Your task to perform on an android device: read, delete, or share a saved page in the chrome app Image 0: 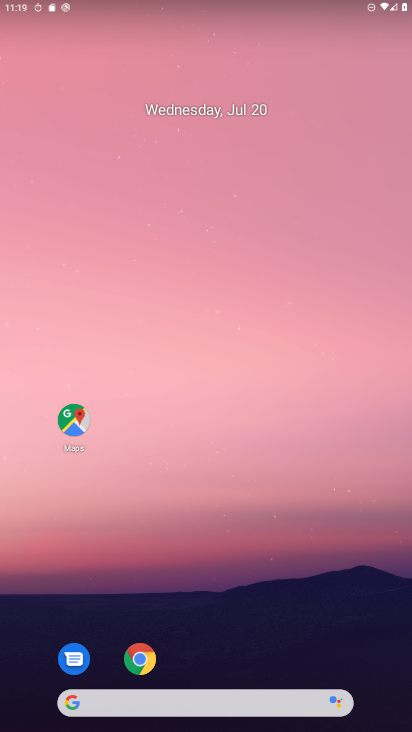
Step 0: drag from (295, 533) to (220, 99)
Your task to perform on an android device: read, delete, or share a saved page in the chrome app Image 1: 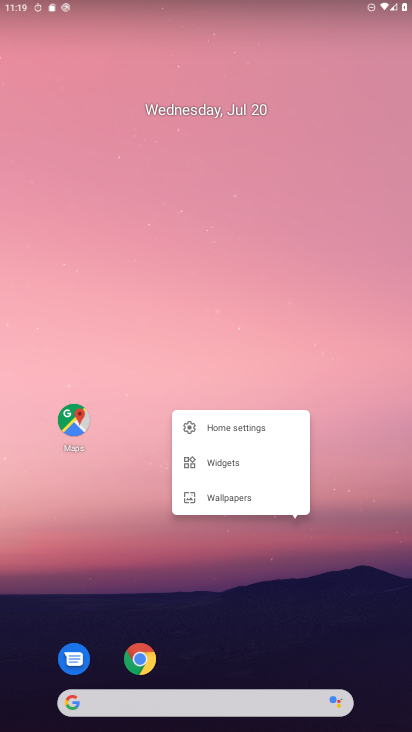
Step 1: click (277, 330)
Your task to perform on an android device: read, delete, or share a saved page in the chrome app Image 2: 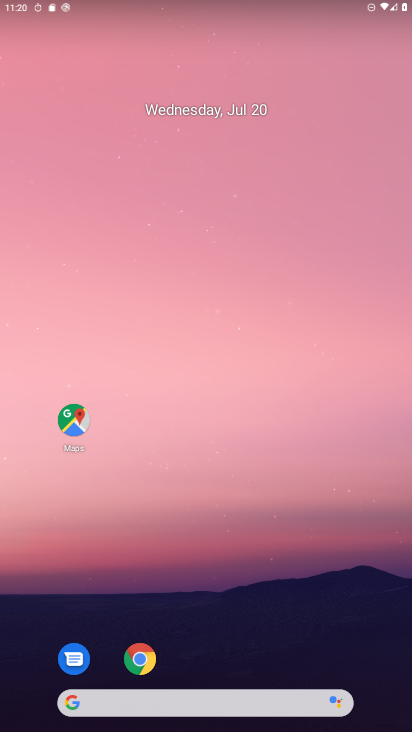
Step 2: drag from (255, 645) to (249, 135)
Your task to perform on an android device: read, delete, or share a saved page in the chrome app Image 3: 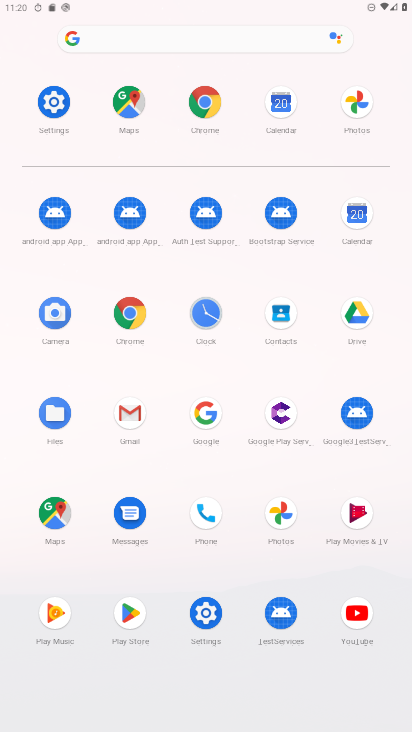
Step 3: click (204, 99)
Your task to perform on an android device: read, delete, or share a saved page in the chrome app Image 4: 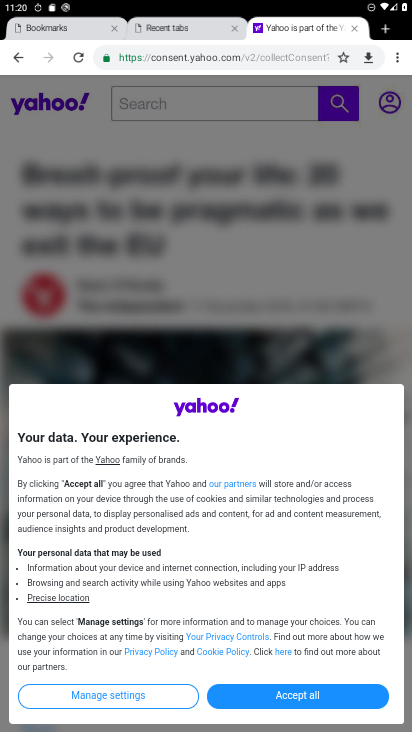
Step 4: task complete